Your task to perform on an android device: Go to Maps Image 0: 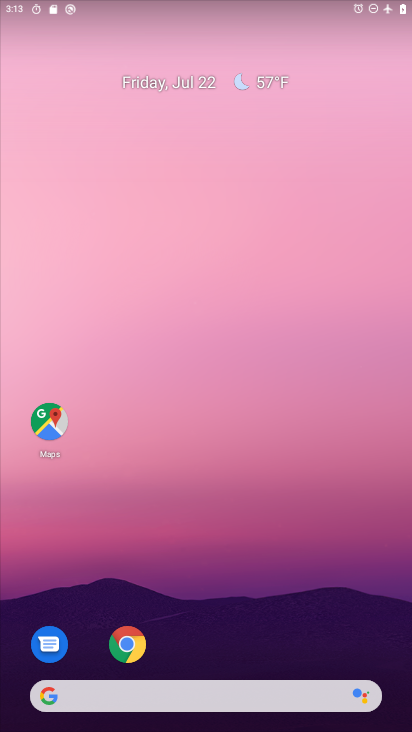
Step 0: click (43, 433)
Your task to perform on an android device: Go to Maps Image 1: 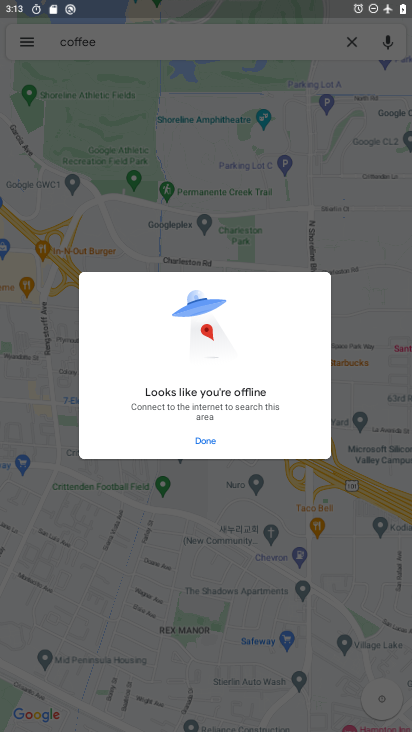
Step 1: task complete